Your task to perform on an android device: add a label to a message in the gmail app Image 0: 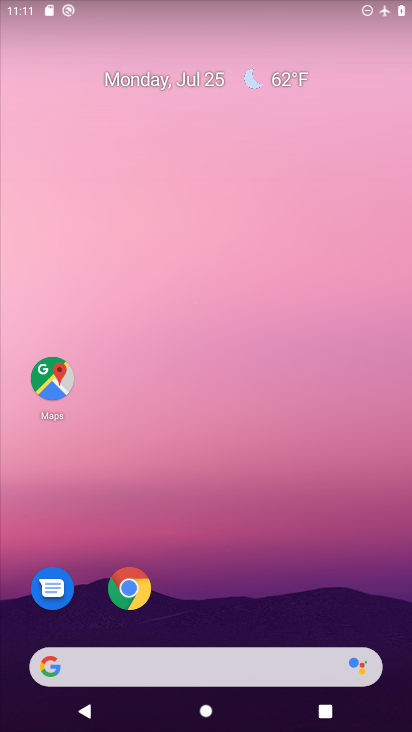
Step 0: drag from (42, 560) to (293, 76)
Your task to perform on an android device: add a label to a message in the gmail app Image 1: 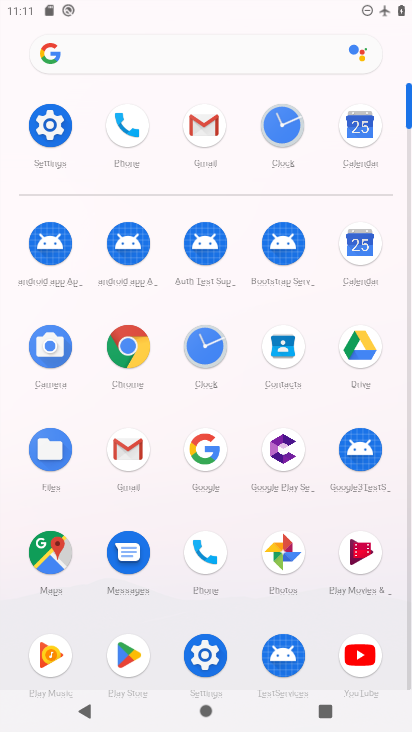
Step 1: click (204, 128)
Your task to perform on an android device: add a label to a message in the gmail app Image 2: 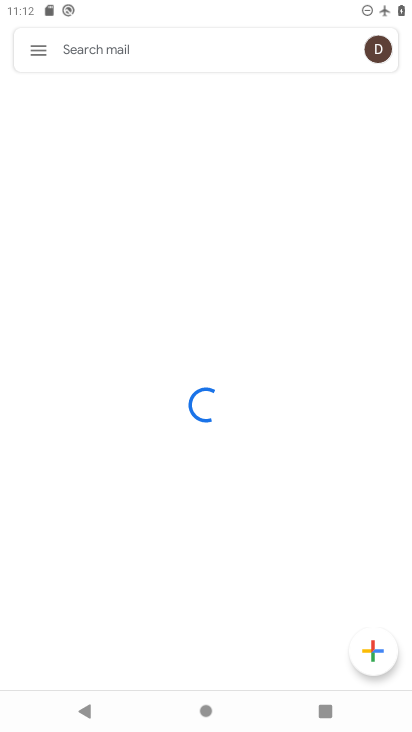
Step 2: drag from (393, 1) to (365, 360)
Your task to perform on an android device: add a label to a message in the gmail app Image 3: 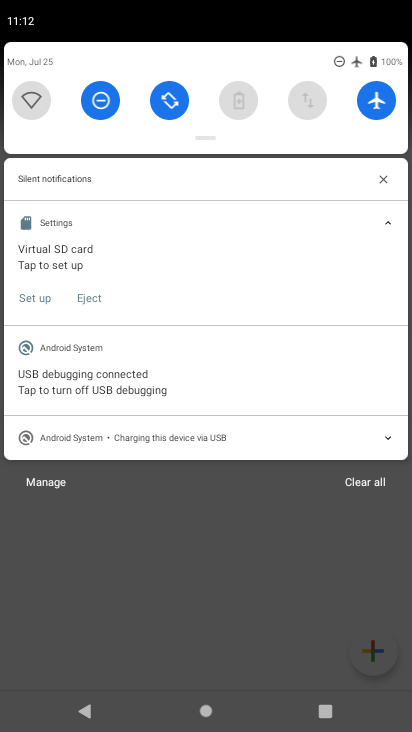
Step 3: click (383, 96)
Your task to perform on an android device: add a label to a message in the gmail app Image 4: 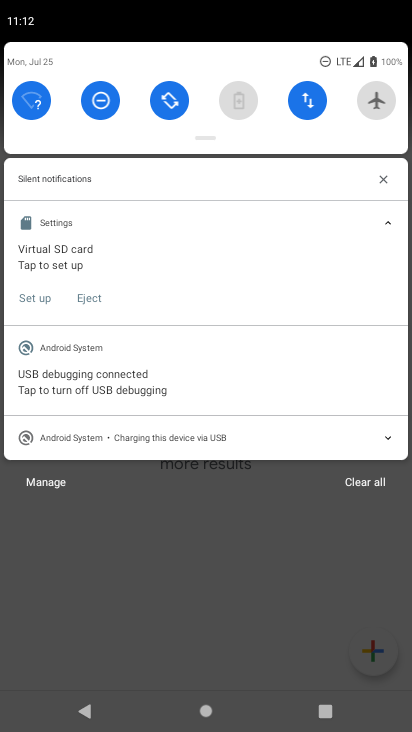
Step 4: task complete